Your task to perform on an android device: Find coffee shops on Maps Image 0: 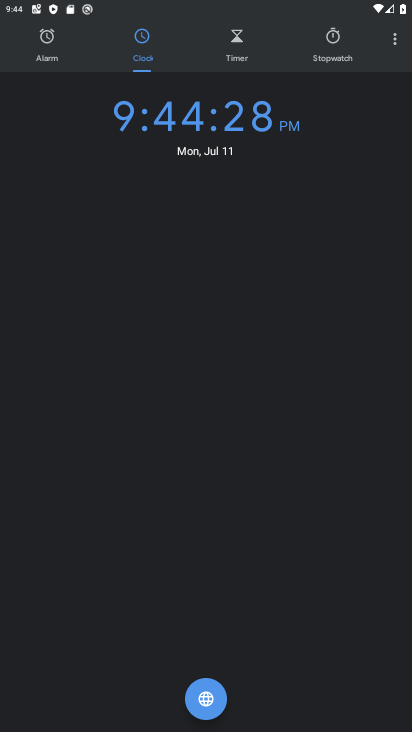
Step 0: press home button
Your task to perform on an android device: Find coffee shops on Maps Image 1: 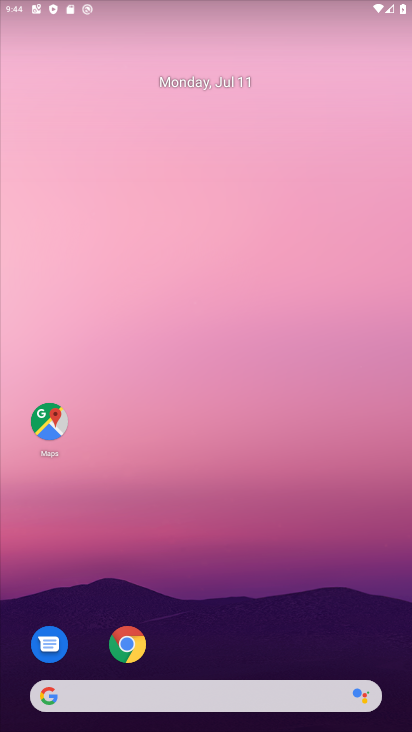
Step 1: drag from (191, 647) to (198, 131)
Your task to perform on an android device: Find coffee shops on Maps Image 2: 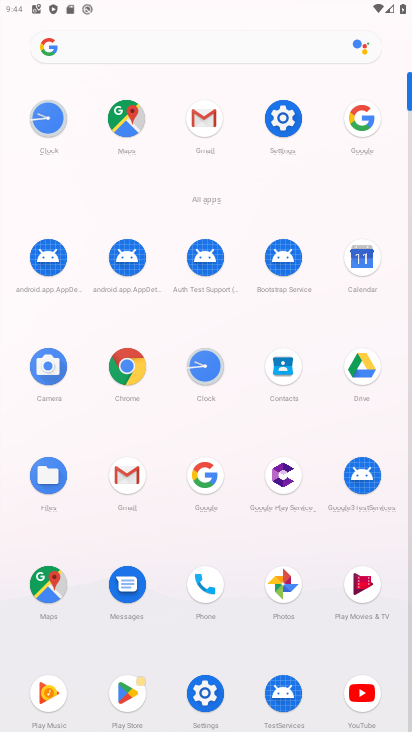
Step 2: click (124, 121)
Your task to perform on an android device: Find coffee shops on Maps Image 3: 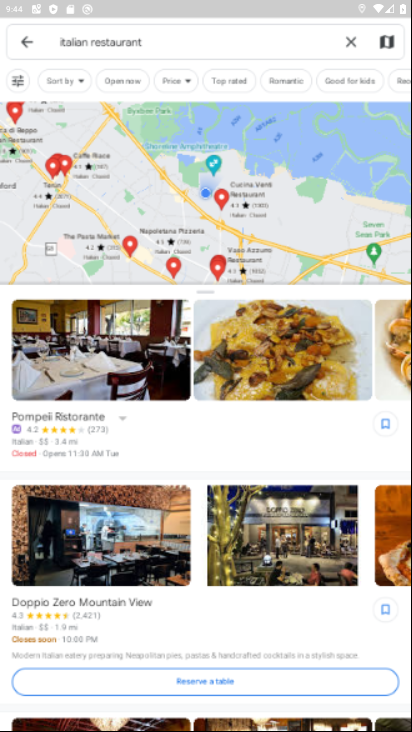
Step 3: click (354, 38)
Your task to perform on an android device: Find coffee shops on Maps Image 4: 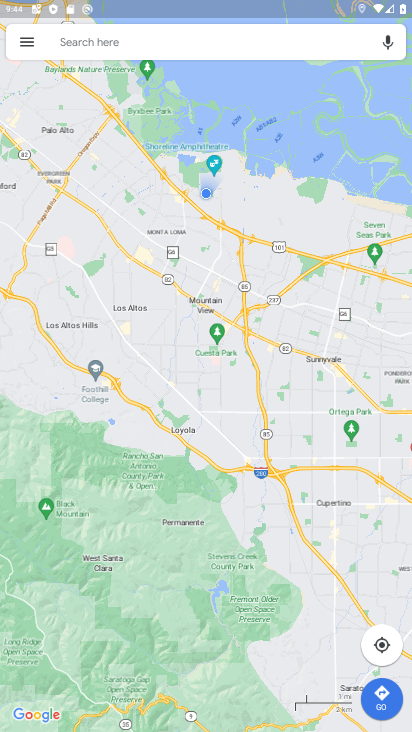
Step 4: click (202, 49)
Your task to perform on an android device: Find coffee shops on Maps Image 5: 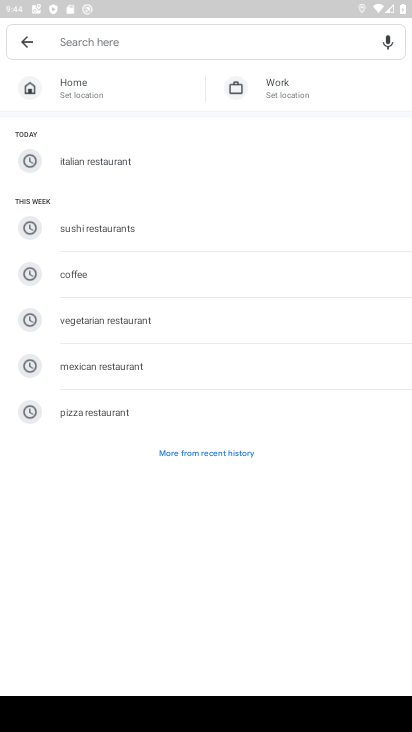
Step 5: click (138, 272)
Your task to perform on an android device: Find coffee shops on Maps Image 6: 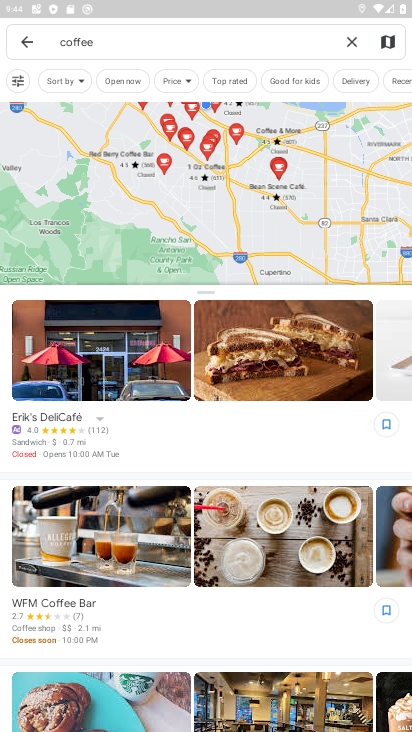
Step 6: task complete